Your task to perform on an android device: change alarm snooze length Image 0: 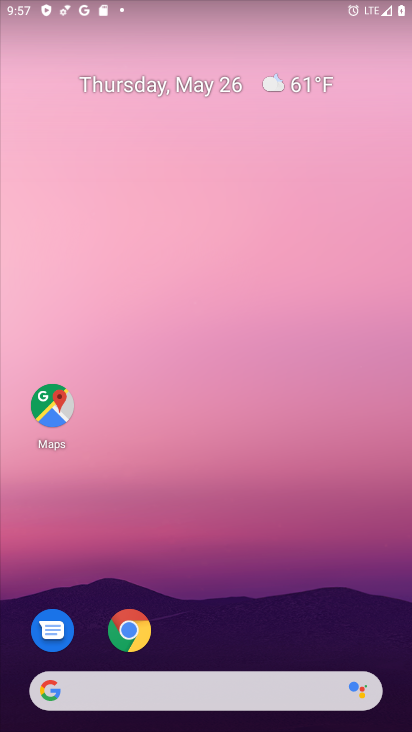
Step 0: drag from (193, 664) to (106, 82)
Your task to perform on an android device: change alarm snooze length Image 1: 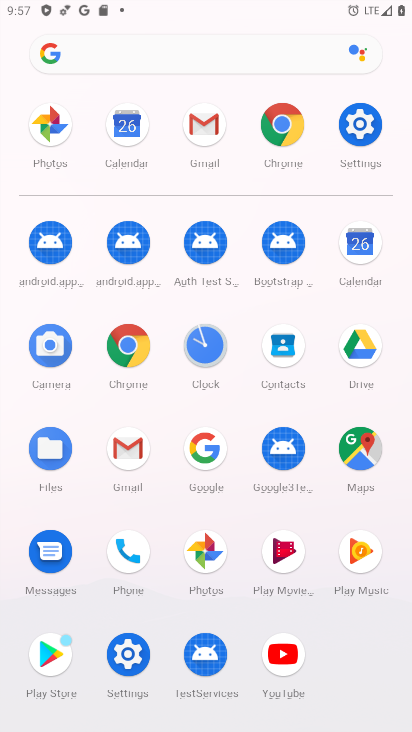
Step 1: click (203, 349)
Your task to perform on an android device: change alarm snooze length Image 2: 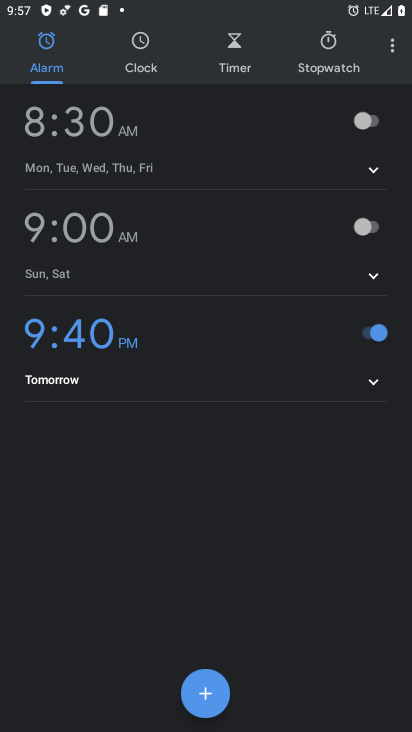
Step 2: click (387, 53)
Your task to perform on an android device: change alarm snooze length Image 3: 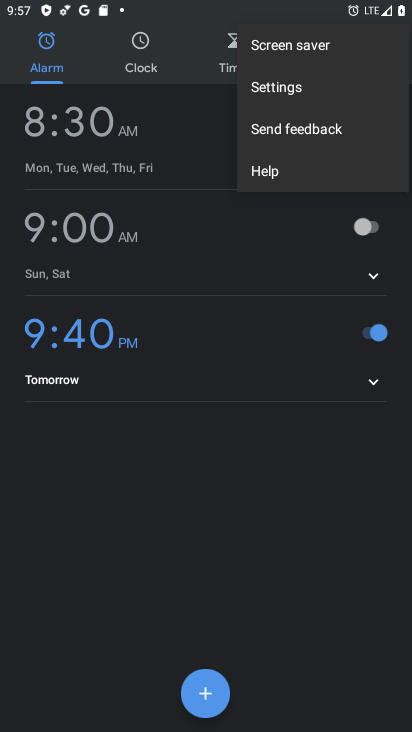
Step 3: click (284, 82)
Your task to perform on an android device: change alarm snooze length Image 4: 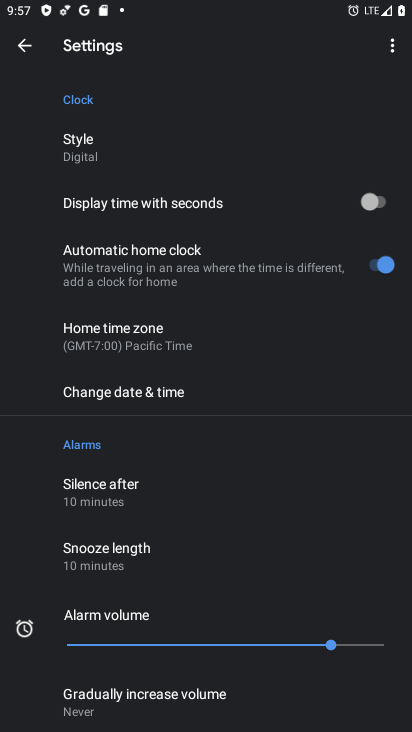
Step 4: click (97, 543)
Your task to perform on an android device: change alarm snooze length Image 5: 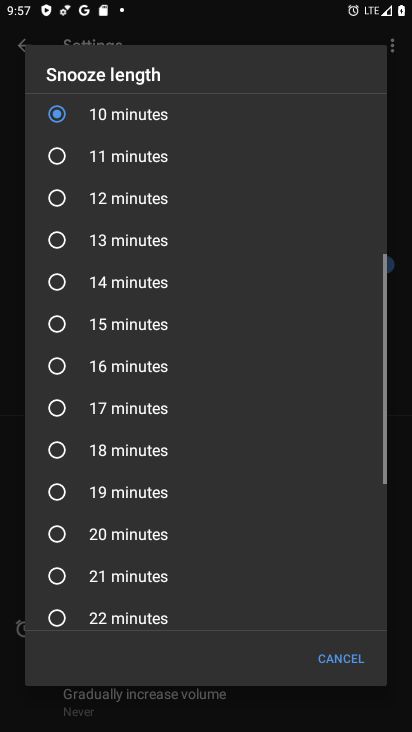
Step 5: click (123, 136)
Your task to perform on an android device: change alarm snooze length Image 6: 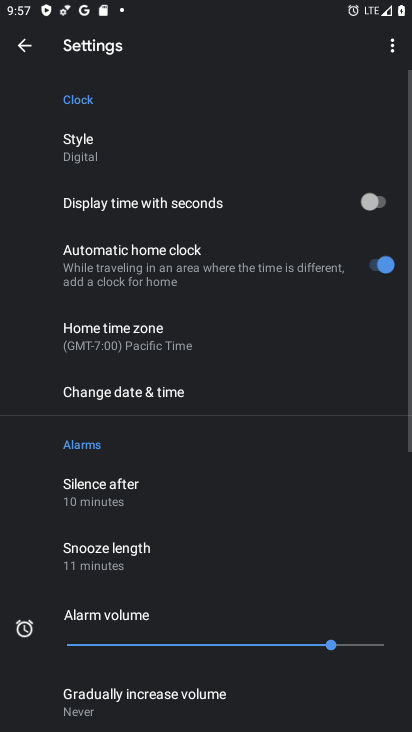
Step 6: task complete